Your task to perform on an android device: Open calendar and show me the first week of next month Image 0: 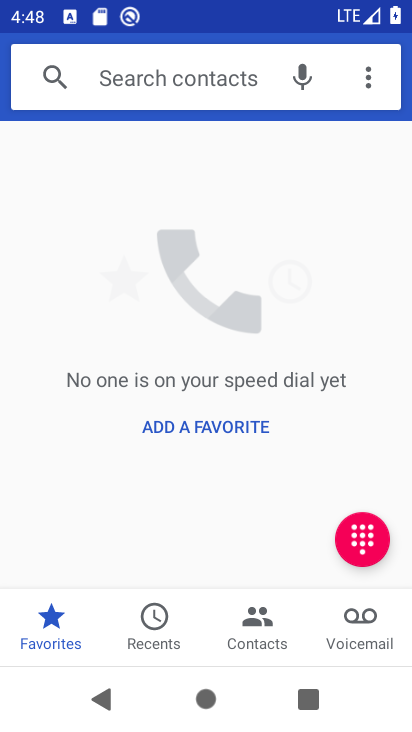
Step 0: press home button
Your task to perform on an android device: Open calendar and show me the first week of next month Image 1: 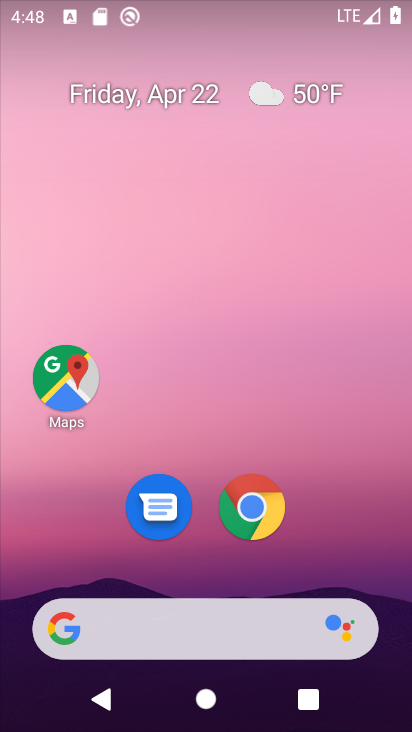
Step 1: drag from (352, 574) to (358, 75)
Your task to perform on an android device: Open calendar and show me the first week of next month Image 2: 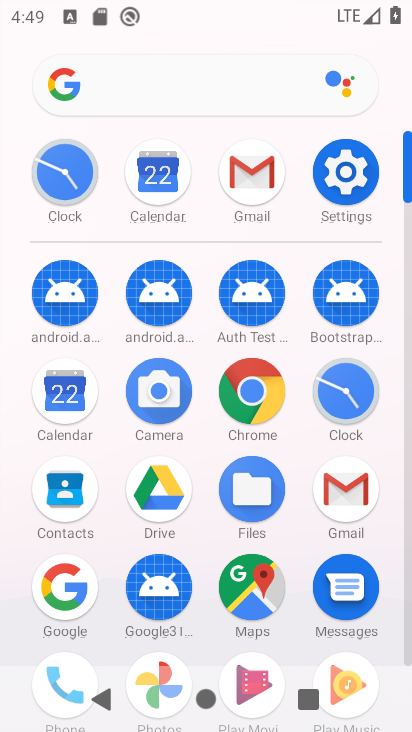
Step 2: click (409, 653)
Your task to perform on an android device: Open calendar and show me the first week of next month Image 3: 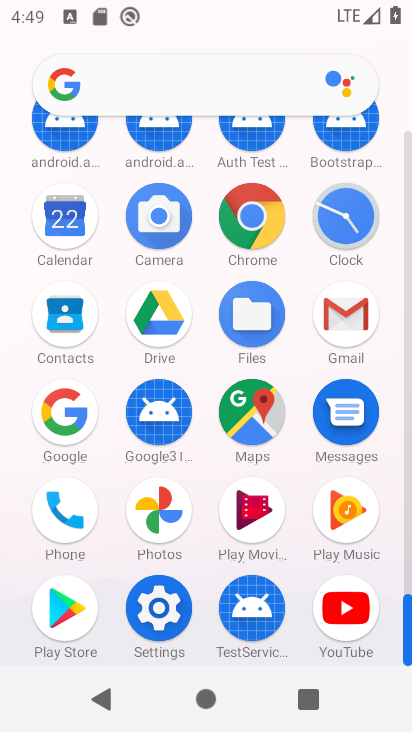
Step 3: click (58, 214)
Your task to perform on an android device: Open calendar and show me the first week of next month Image 4: 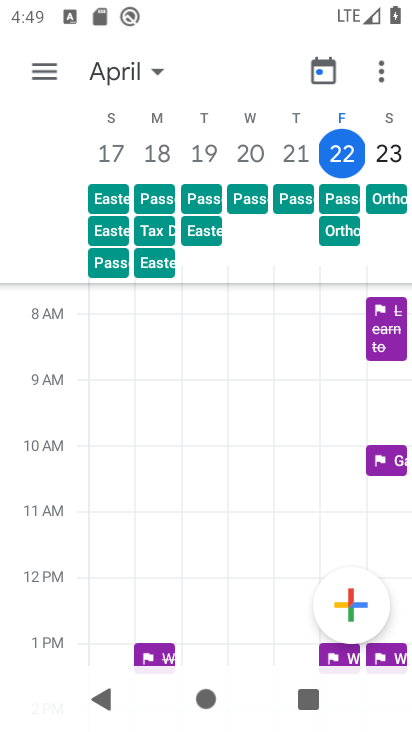
Step 4: click (47, 73)
Your task to perform on an android device: Open calendar and show me the first week of next month Image 5: 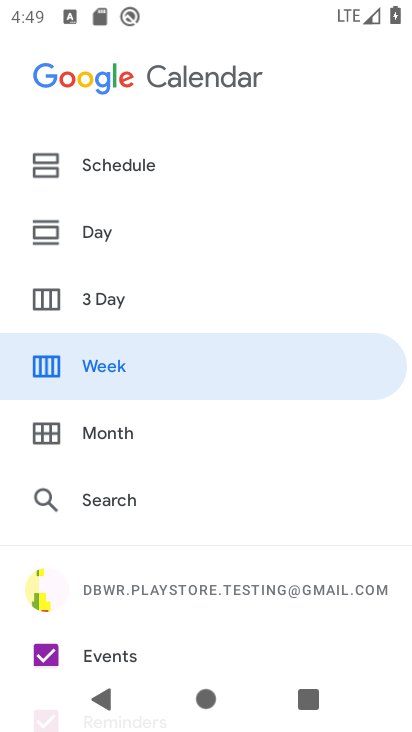
Step 5: click (136, 360)
Your task to perform on an android device: Open calendar and show me the first week of next month Image 6: 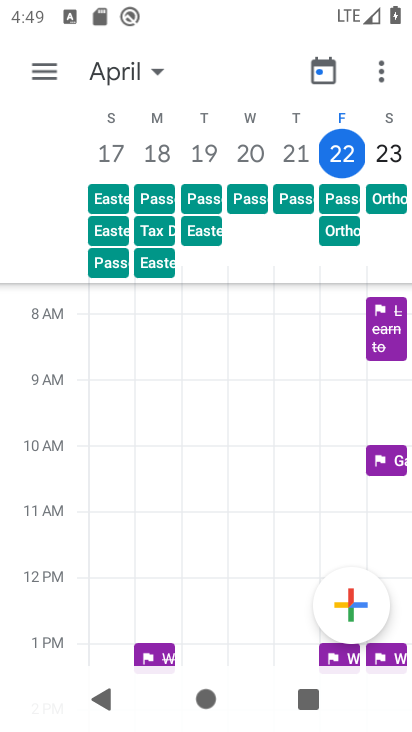
Step 6: click (161, 65)
Your task to perform on an android device: Open calendar and show me the first week of next month Image 7: 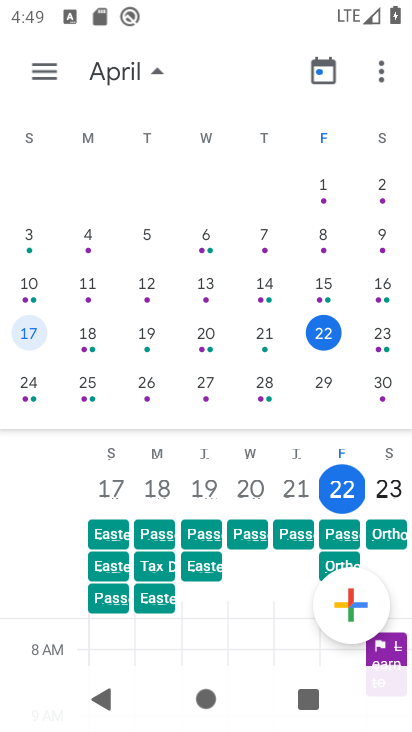
Step 7: drag from (383, 282) to (0, 258)
Your task to perform on an android device: Open calendar and show me the first week of next month Image 8: 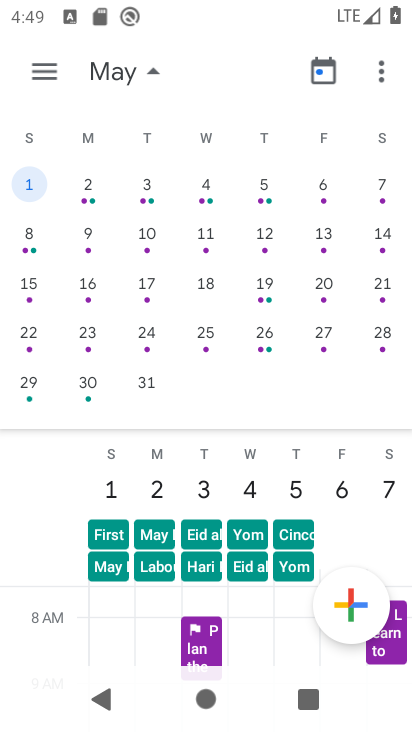
Step 8: click (32, 182)
Your task to perform on an android device: Open calendar and show me the first week of next month Image 9: 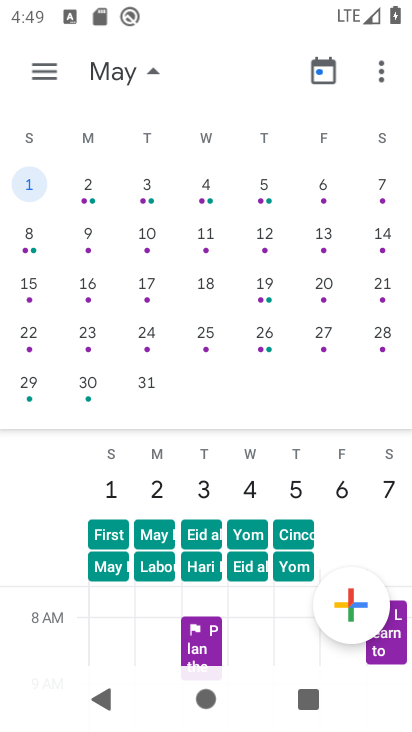
Step 9: task complete